Your task to perform on an android device: Search for "jbl flip 4" on amazon, select the first entry, and add it to the cart. Image 0: 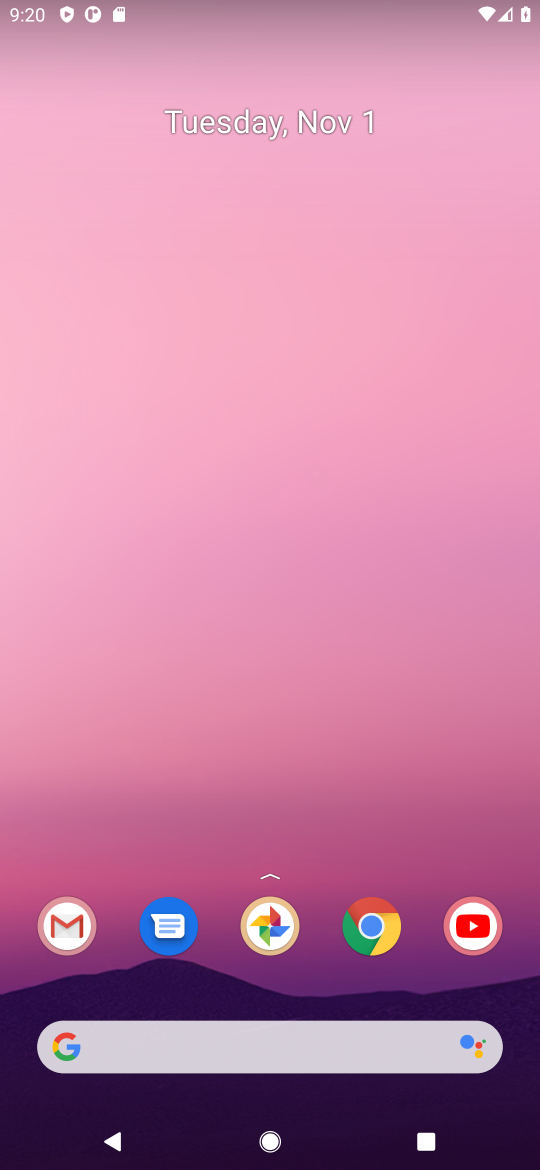
Step 0: press home button
Your task to perform on an android device: Search for "jbl flip 4" on amazon, select the first entry, and add it to the cart. Image 1: 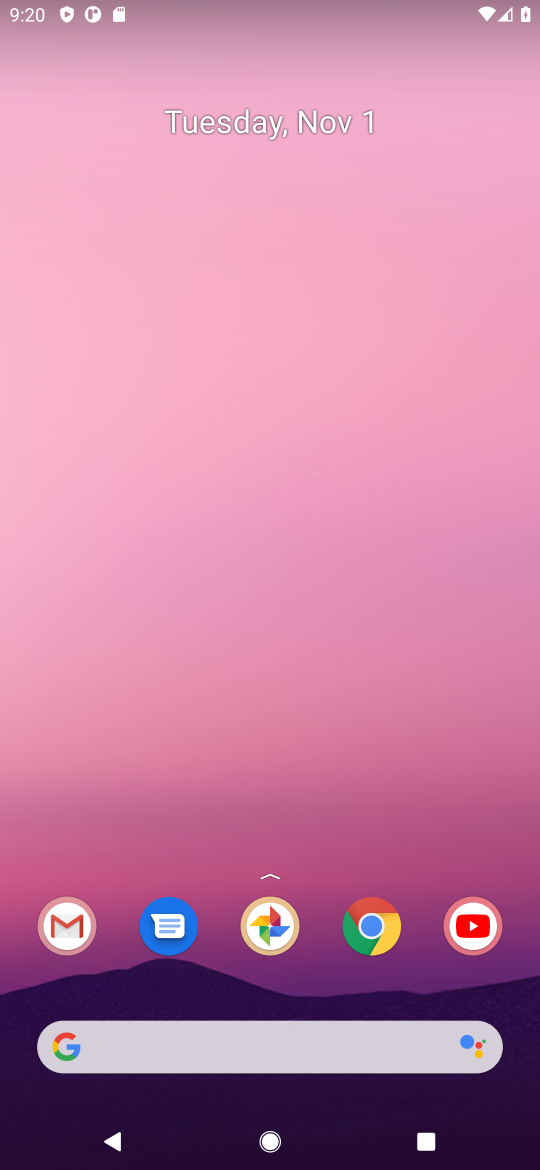
Step 1: click (386, 936)
Your task to perform on an android device: Search for "jbl flip 4" on amazon, select the first entry, and add it to the cart. Image 2: 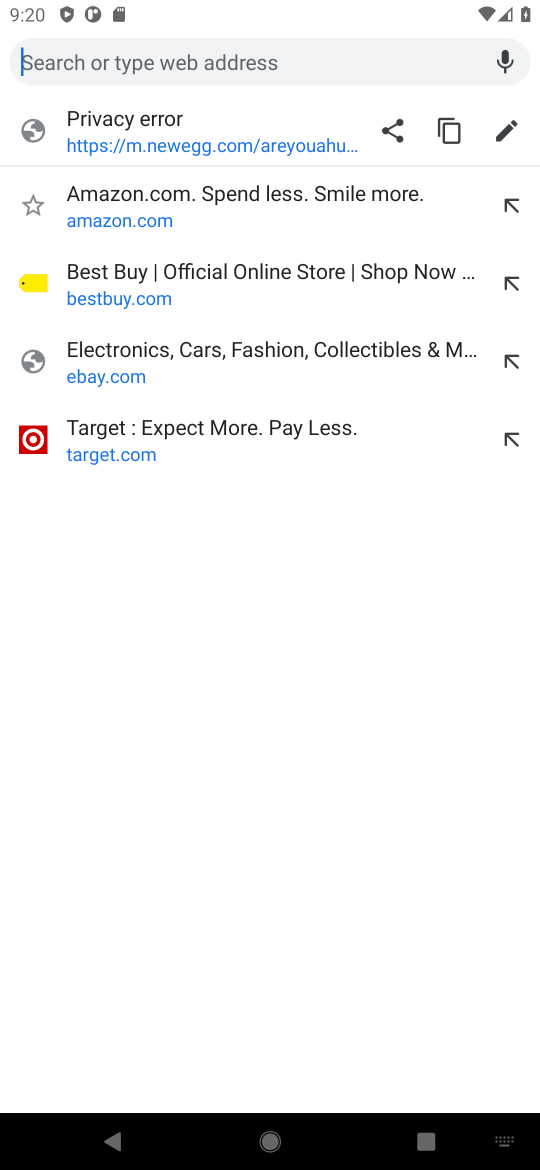
Step 2: type "amazon"
Your task to perform on an android device: Search for "jbl flip 4" on amazon, select the first entry, and add it to the cart. Image 3: 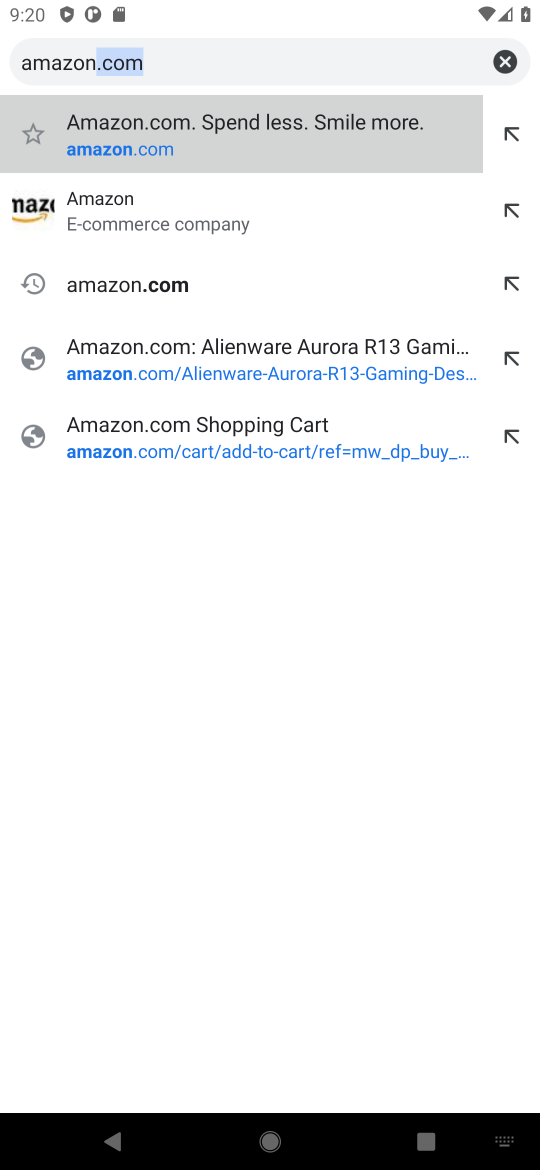
Step 3: type ""
Your task to perform on an android device: Search for "jbl flip 4" on amazon, select the first entry, and add it to the cart. Image 4: 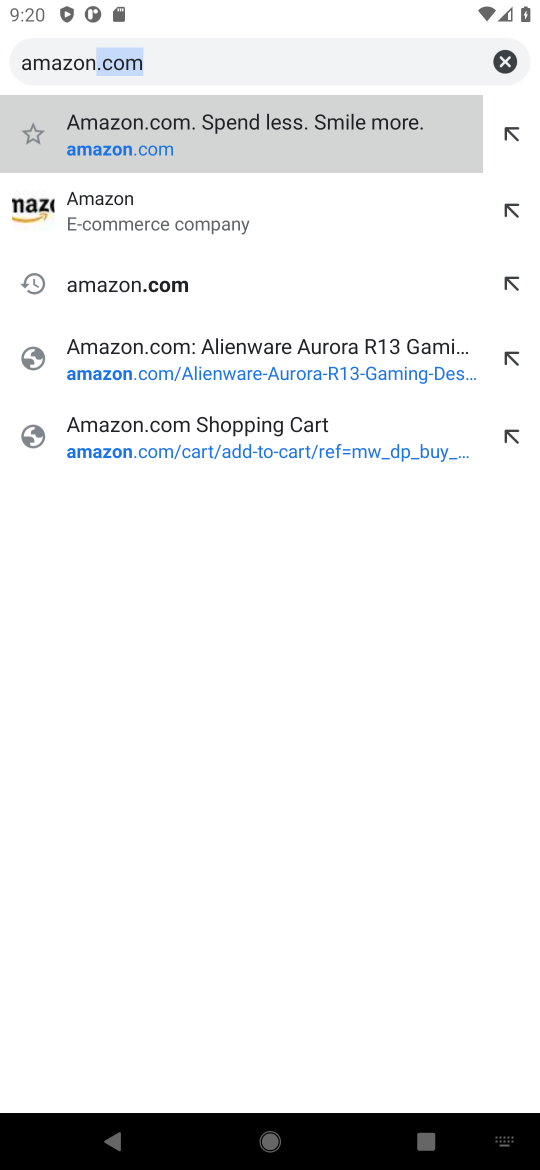
Step 4: click (85, 205)
Your task to perform on an android device: Search for "jbl flip 4" on amazon, select the first entry, and add it to the cart. Image 5: 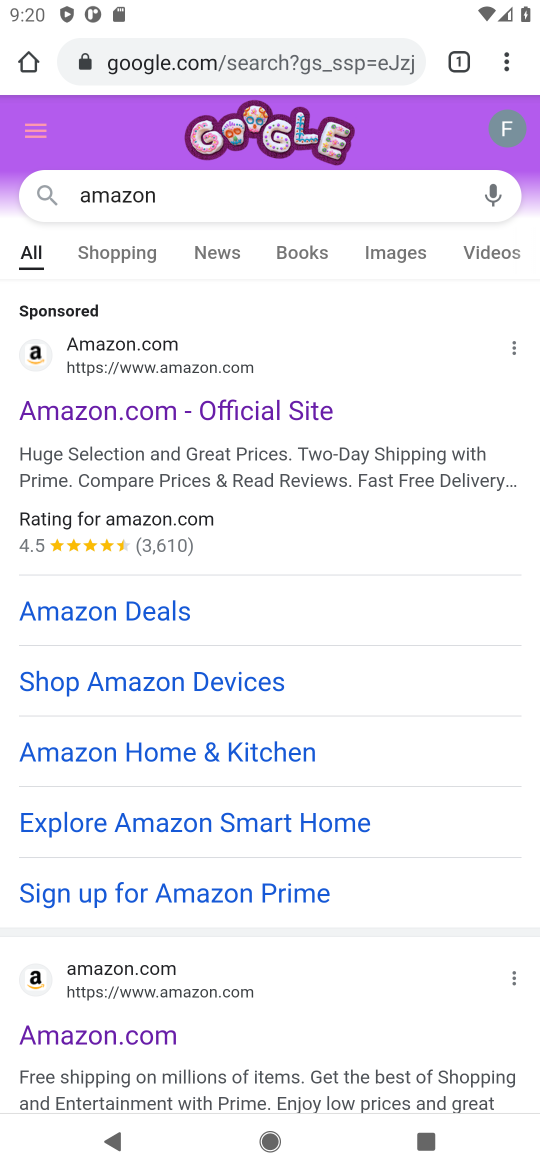
Step 5: click (98, 403)
Your task to perform on an android device: Search for "jbl flip 4" on amazon, select the first entry, and add it to the cart. Image 6: 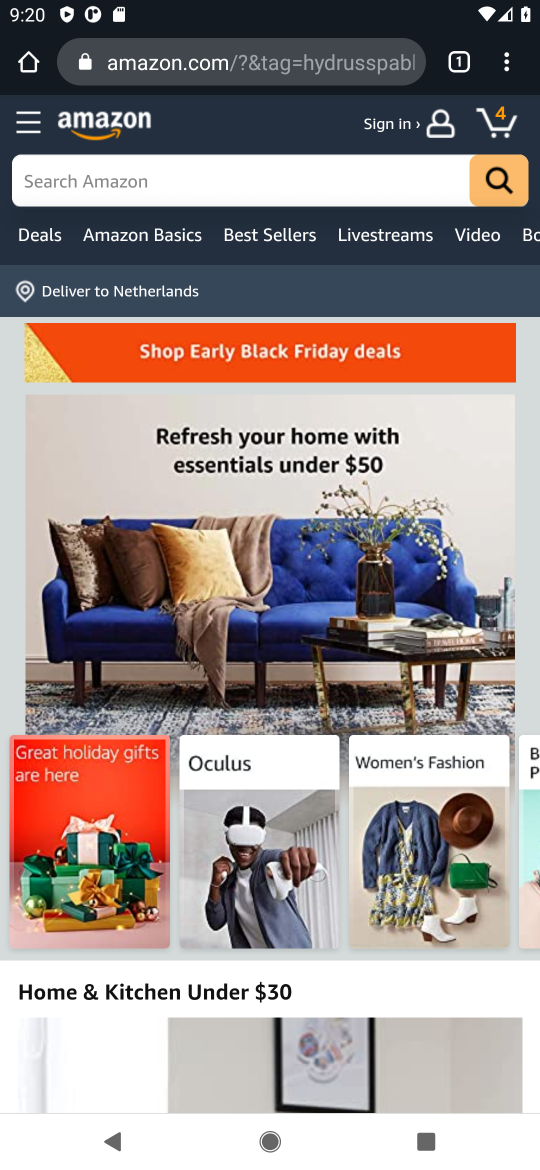
Step 6: click (146, 185)
Your task to perform on an android device: Search for "jbl flip 4" on amazon, select the first entry, and add it to the cart. Image 7: 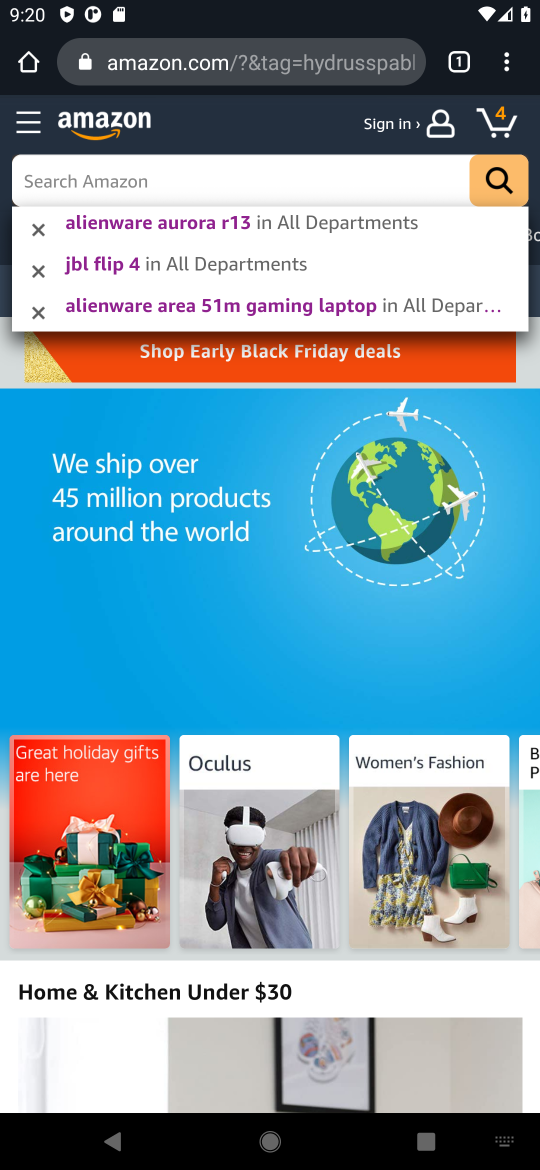
Step 7: click (102, 272)
Your task to perform on an android device: Search for "jbl flip 4" on amazon, select the first entry, and add it to the cart. Image 8: 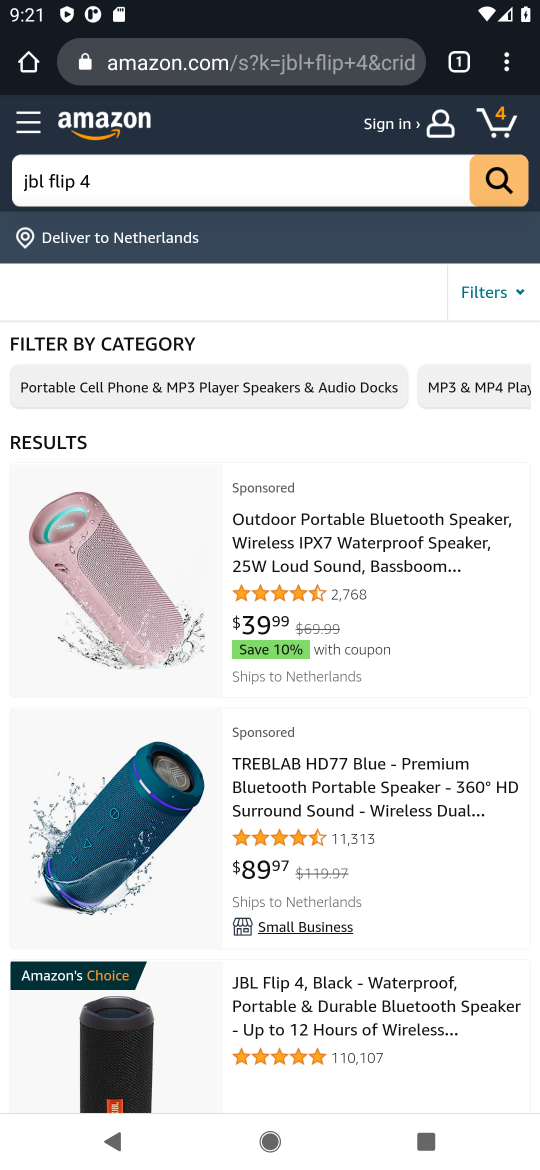
Step 8: drag from (300, 729) to (300, 453)
Your task to perform on an android device: Search for "jbl flip 4" on amazon, select the first entry, and add it to the cart. Image 9: 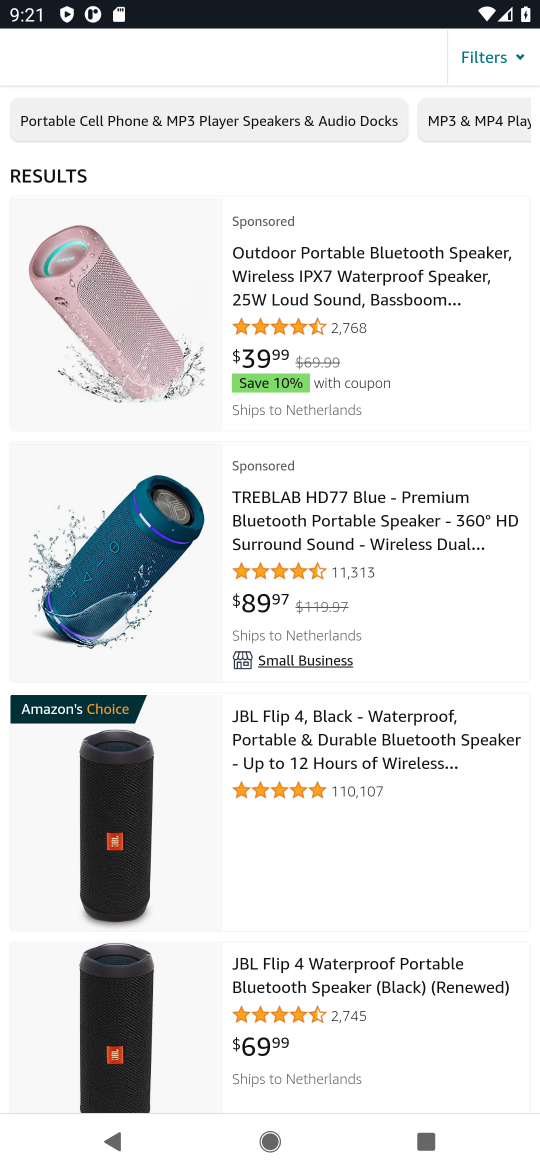
Step 9: click (93, 776)
Your task to perform on an android device: Search for "jbl flip 4" on amazon, select the first entry, and add it to the cart. Image 10: 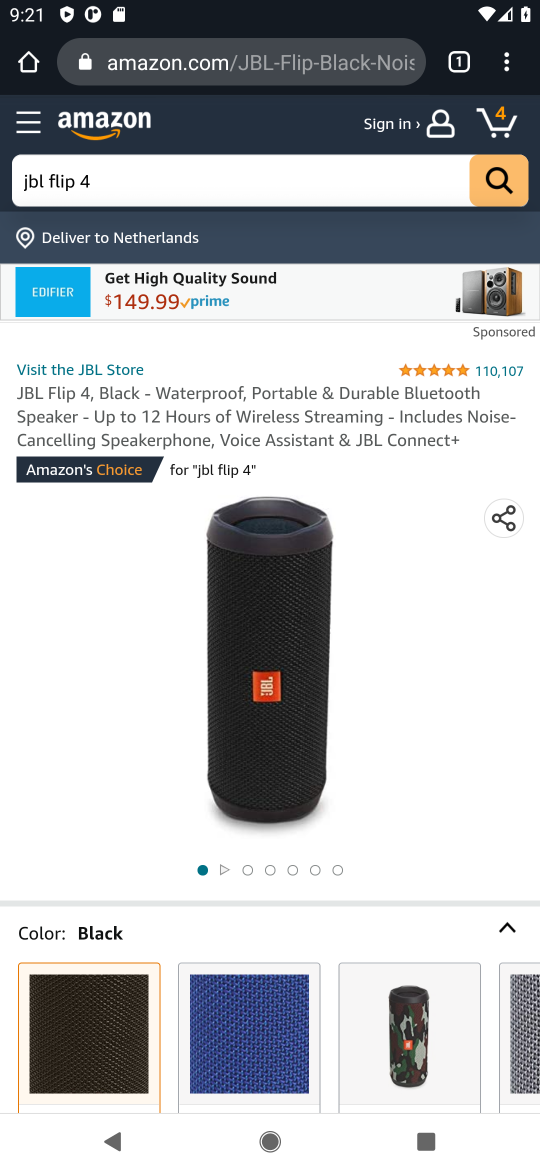
Step 10: drag from (92, 635) to (221, 5)
Your task to perform on an android device: Search for "jbl flip 4" on amazon, select the first entry, and add it to the cart. Image 11: 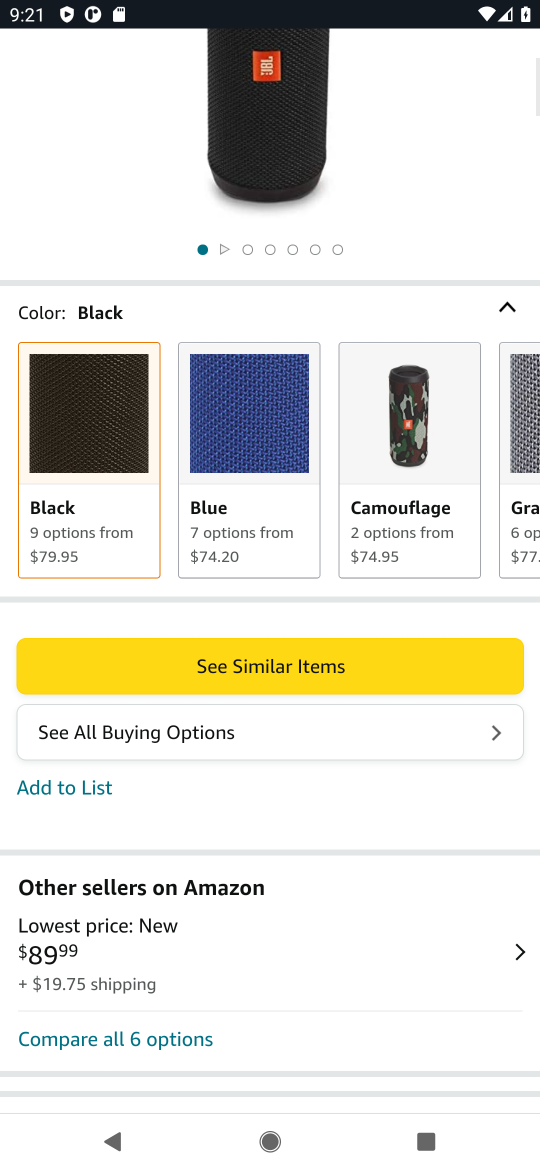
Step 11: drag from (184, 924) to (236, 282)
Your task to perform on an android device: Search for "jbl flip 4" on amazon, select the first entry, and add it to the cart. Image 12: 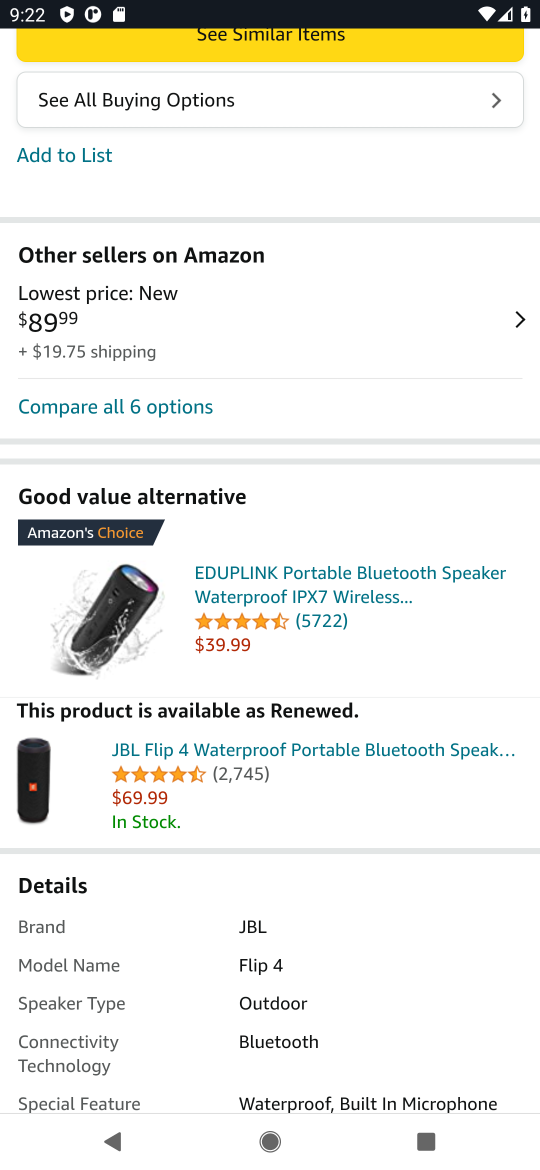
Step 12: drag from (71, 1080) to (219, 939)
Your task to perform on an android device: Search for "jbl flip 4" on amazon, select the first entry, and add it to the cart. Image 13: 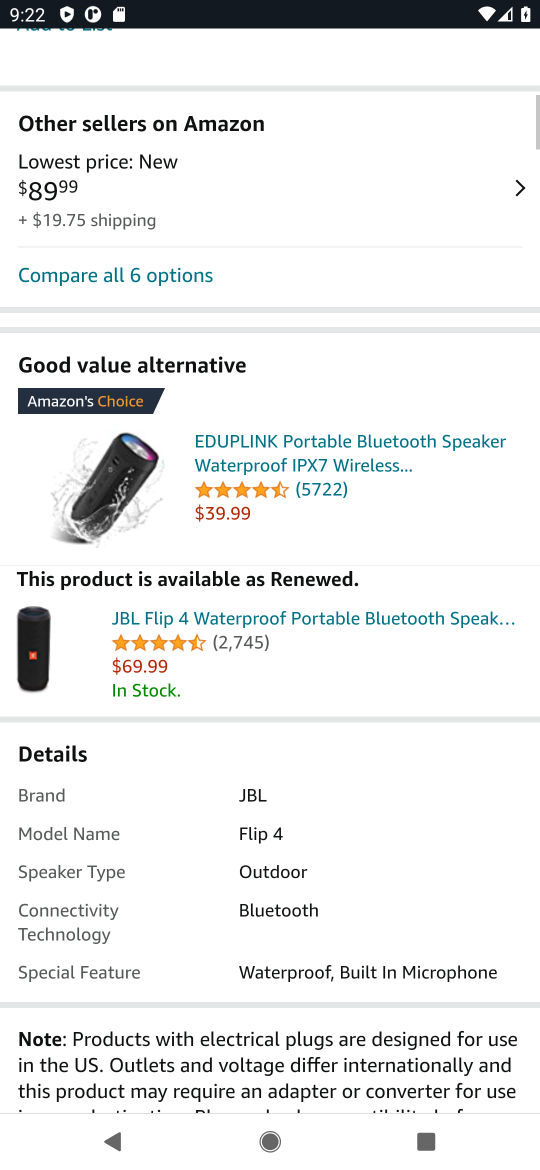
Step 13: drag from (204, 329) to (161, 963)
Your task to perform on an android device: Search for "jbl flip 4" on amazon, select the first entry, and add it to the cart. Image 14: 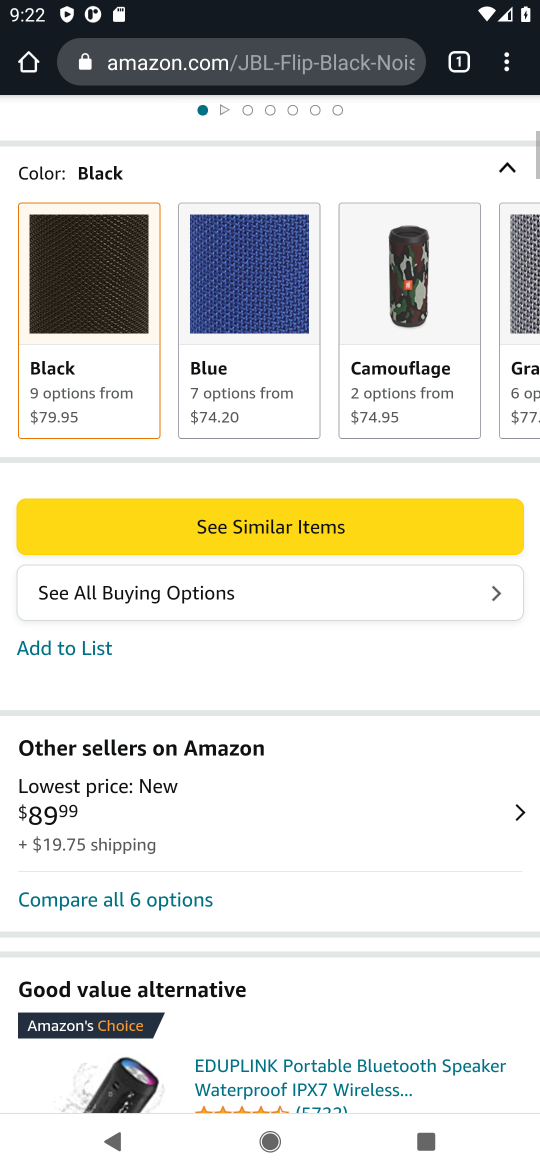
Step 14: drag from (225, 459) to (225, 772)
Your task to perform on an android device: Search for "jbl flip 4" on amazon, select the first entry, and add it to the cart. Image 15: 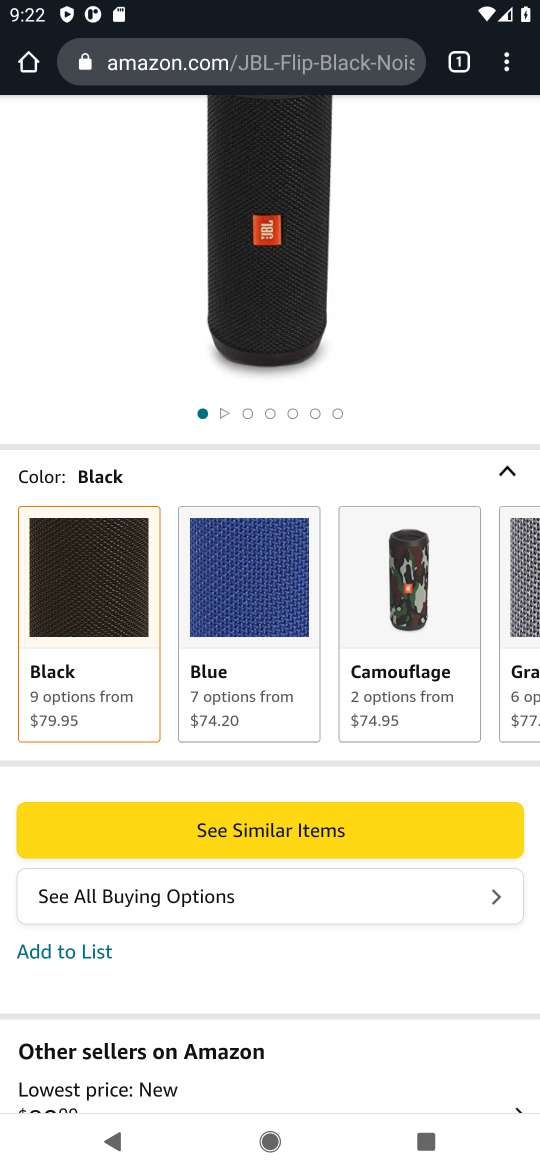
Step 15: drag from (198, 410) to (264, 197)
Your task to perform on an android device: Search for "jbl flip 4" on amazon, select the first entry, and add it to the cart. Image 16: 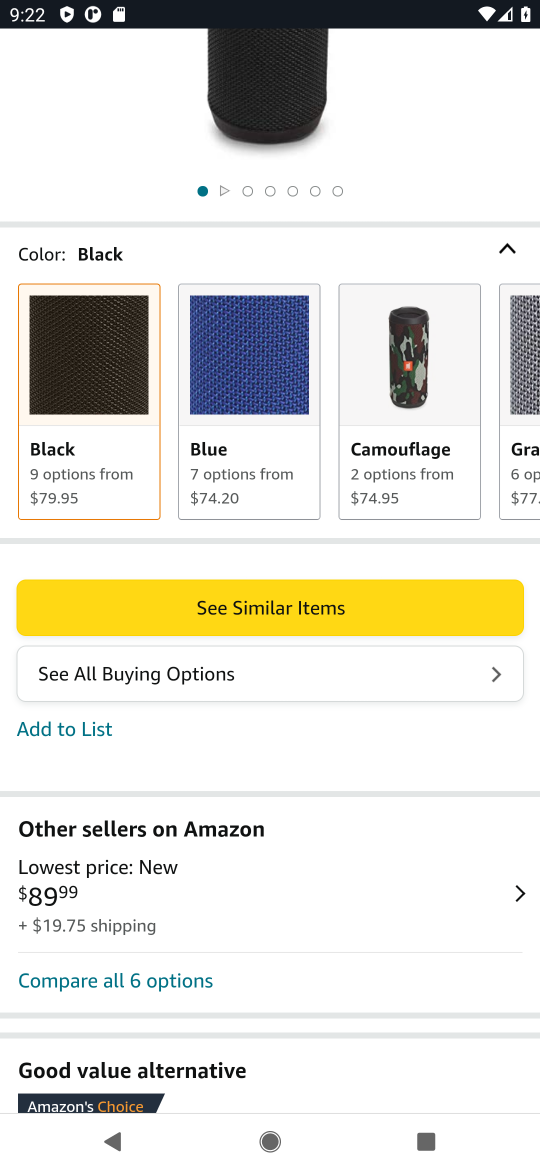
Step 16: click (63, 736)
Your task to perform on an android device: Search for "jbl flip 4" on amazon, select the first entry, and add it to the cart. Image 17: 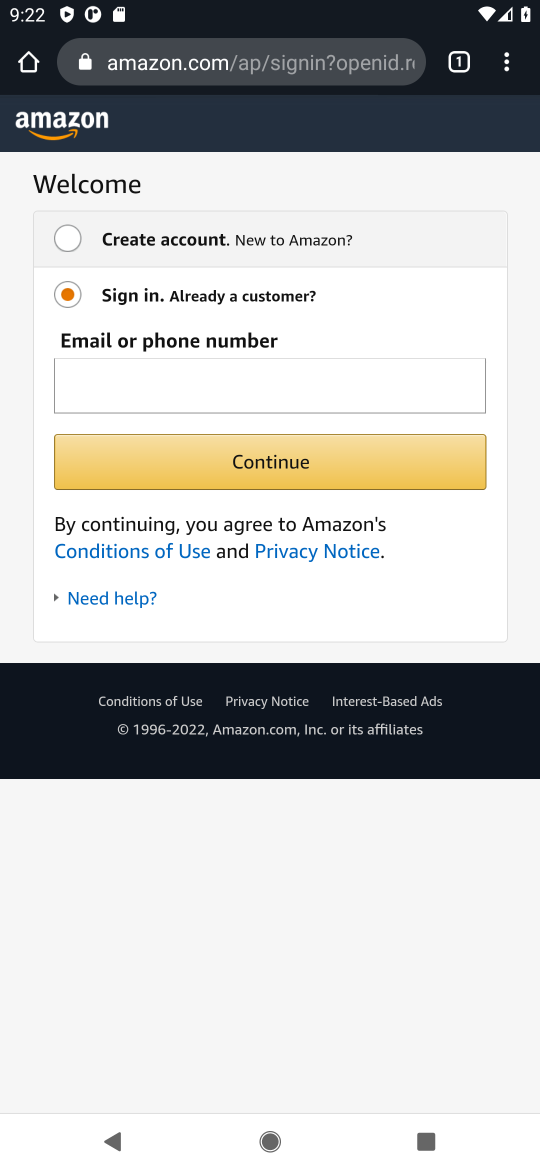
Step 17: click (61, 728)
Your task to perform on an android device: Search for "jbl flip 4" on amazon, select the first entry, and add it to the cart. Image 18: 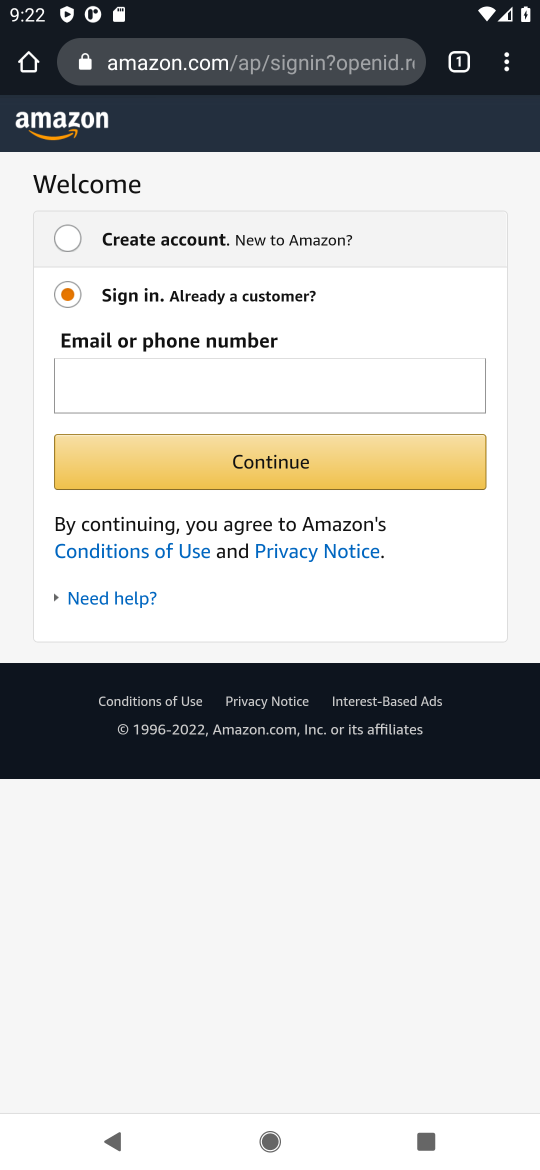
Step 18: task complete